Your task to perform on an android device: Open settings on Google Maps Image 0: 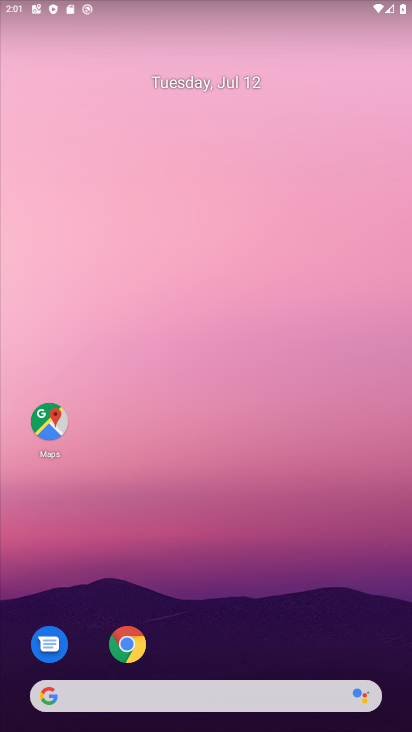
Step 0: drag from (190, 661) to (143, 126)
Your task to perform on an android device: Open settings on Google Maps Image 1: 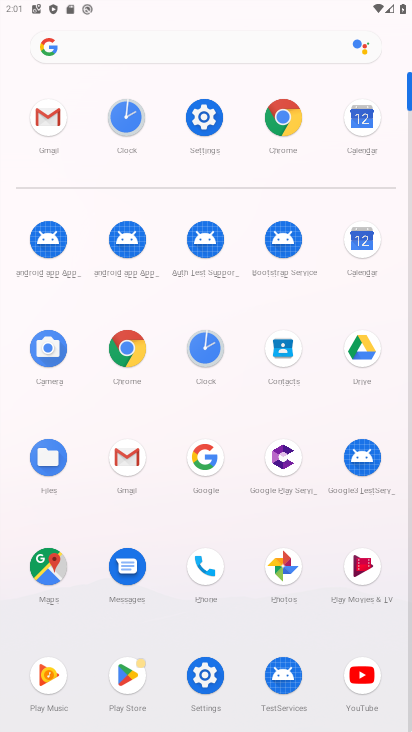
Step 1: click (61, 577)
Your task to perform on an android device: Open settings on Google Maps Image 2: 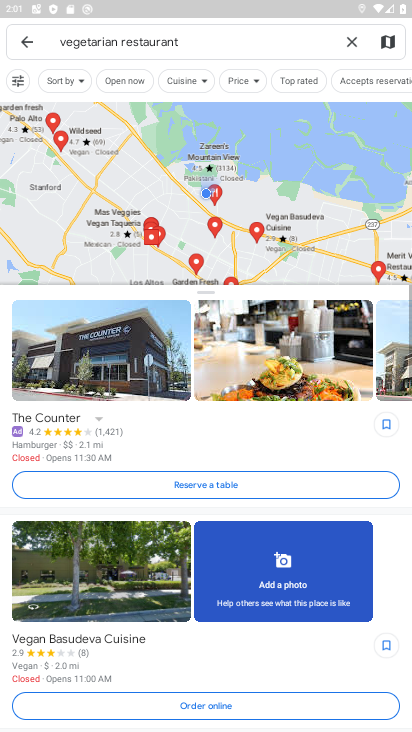
Step 2: click (25, 47)
Your task to perform on an android device: Open settings on Google Maps Image 3: 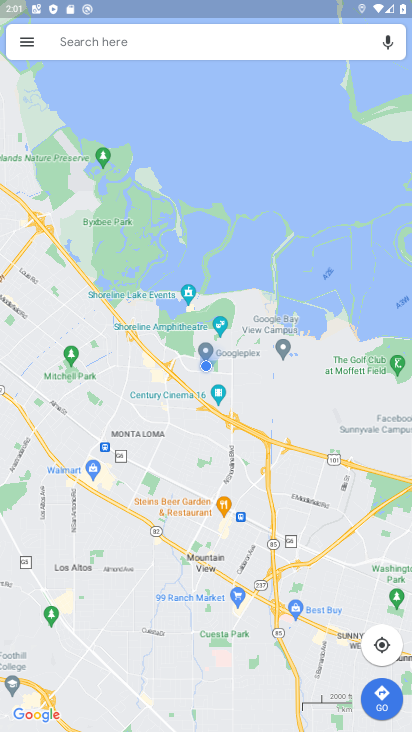
Step 3: click (23, 46)
Your task to perform on an android device: Open settings on Google Maps Image 4: 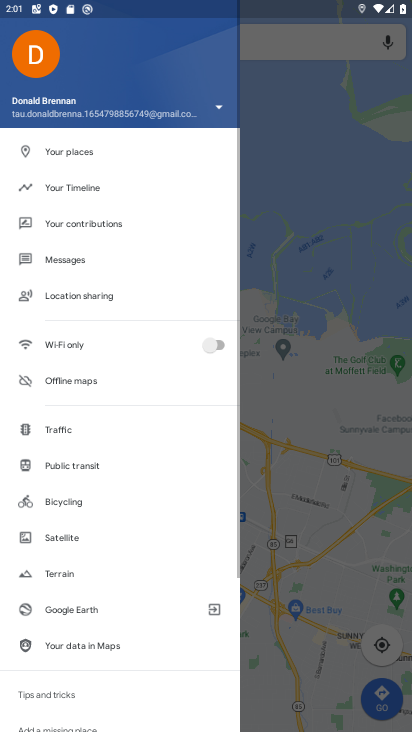
Step 4: drag from (66, 612) to (76, 294)
Your task to perform on an android device: Open settings on Google Maps Image 5: 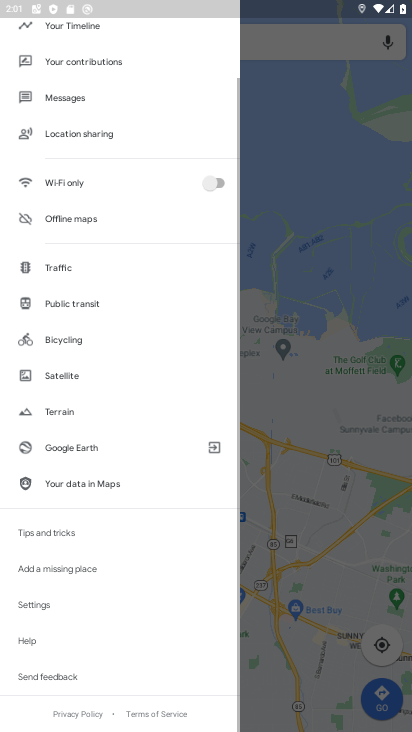
Step 5: click (52, 600)
Your task to perform on an android device: Open settings on Google Maps Image 6: 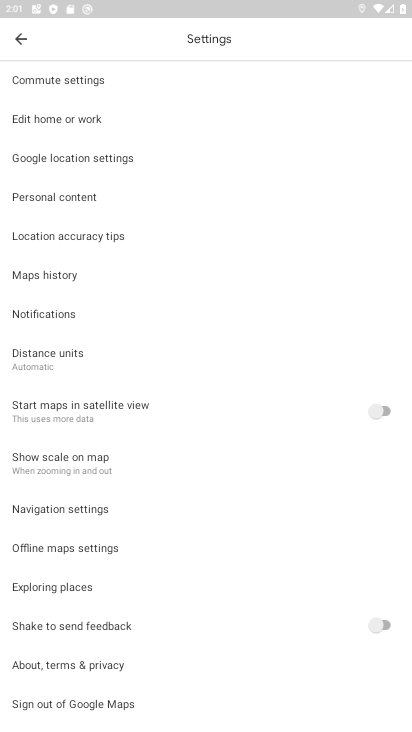
Step 6: task complete